Your task to perform on an android device: Open Amazon Image 0: 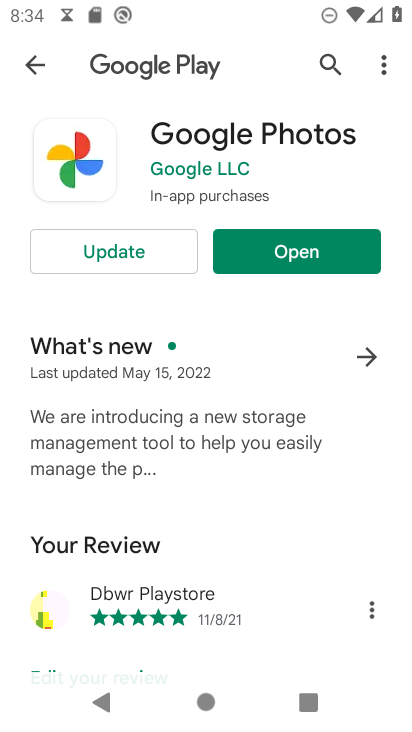
Step 0: press home button
Your task to perform on an android device: Open Amazon Image 1: 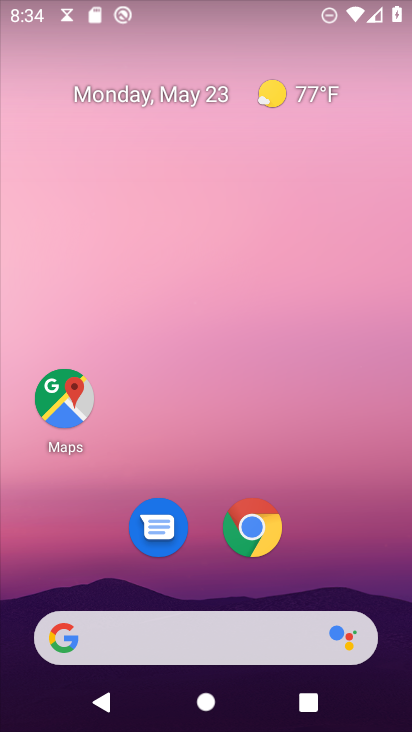
Step 1: drag from (328, 664) to (243, 159)
Your task to perform on an android device: Open Amazon Image 2: 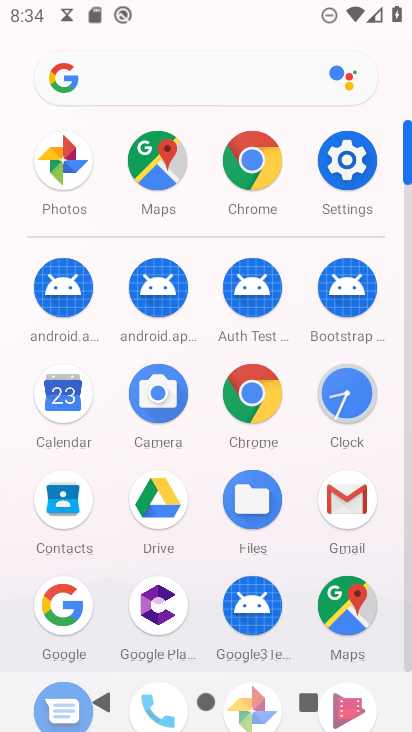
Step 2: click (252, 168)
Your task to perform on an android device: Open Amazon Image 3: 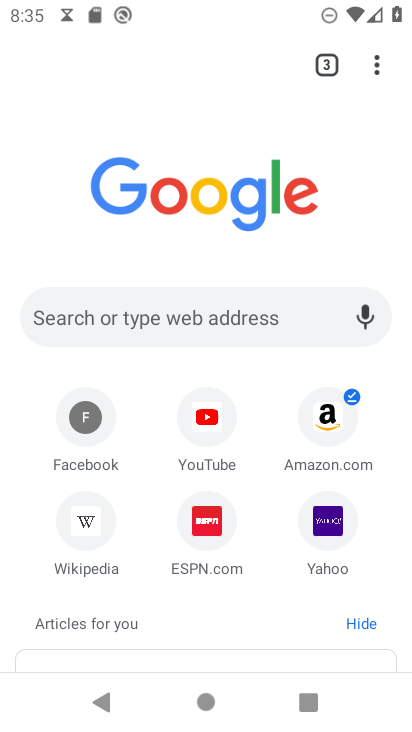
Step 3: click (294, 436)
Your task to perform on an android device: Open Amazon Image 4: 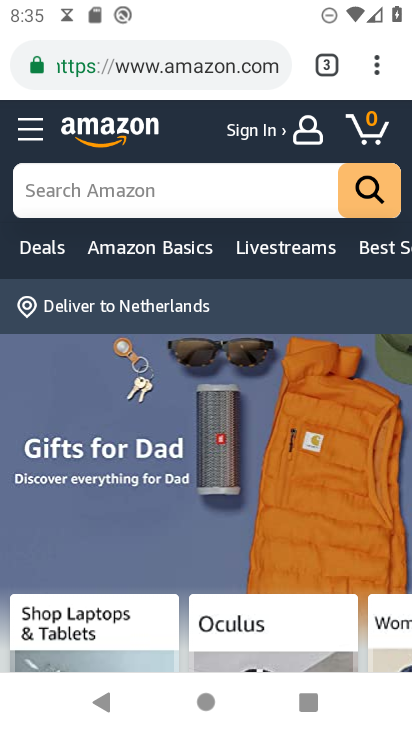
Step 4: task complete